Your task to perform on an android device: What's on my calendar tomorrow? Image 0: 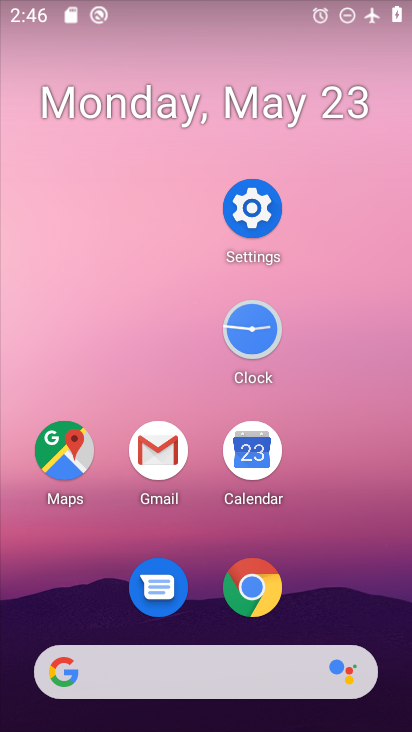
Step 0: click (258, 465)
Your task to perform on an android device: What's on my calendar tomorrow? Image 1: 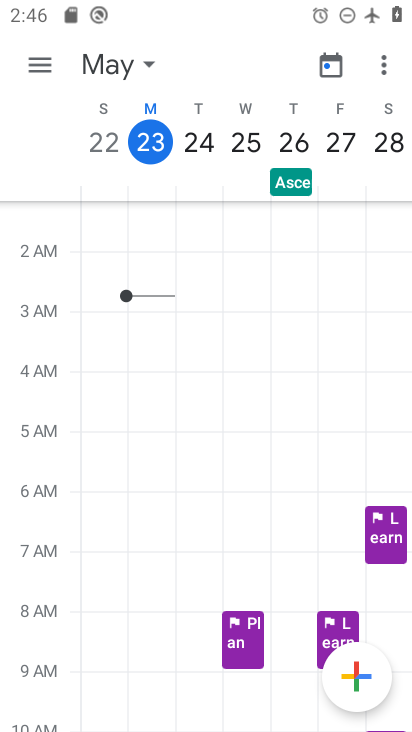
Step 1: task complete